Your task to perform on an android device: remove spam from my inbox in the gmail app Image 0: 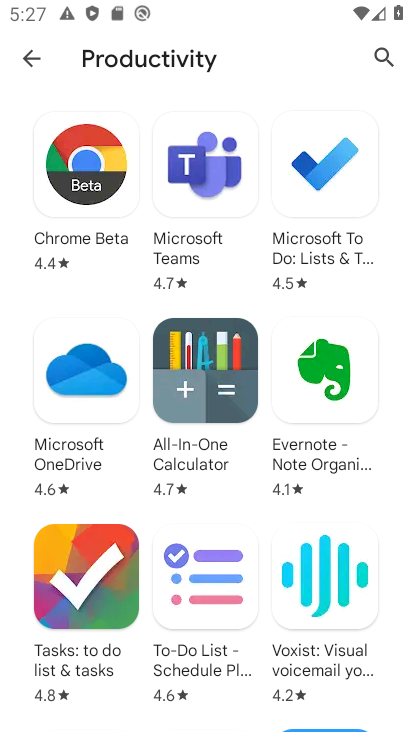
Step 0: press back button
Your task to perform on an android device: remove spam from my inbox in the gmail app Image 1: 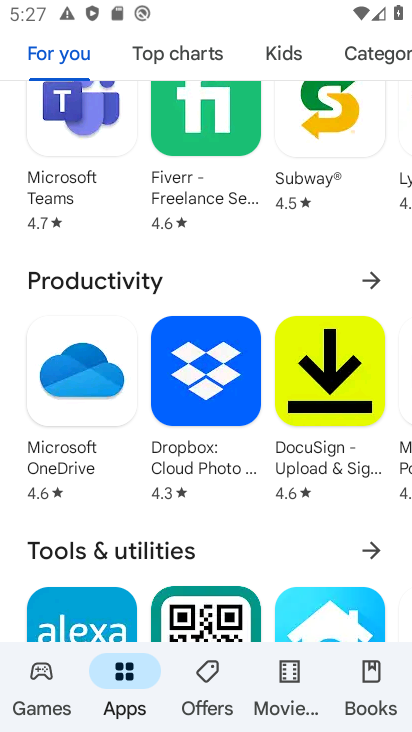
Step 1: press back button
Your task to perform on an android device: remove spam from my inbox in the gmail app Image 2: 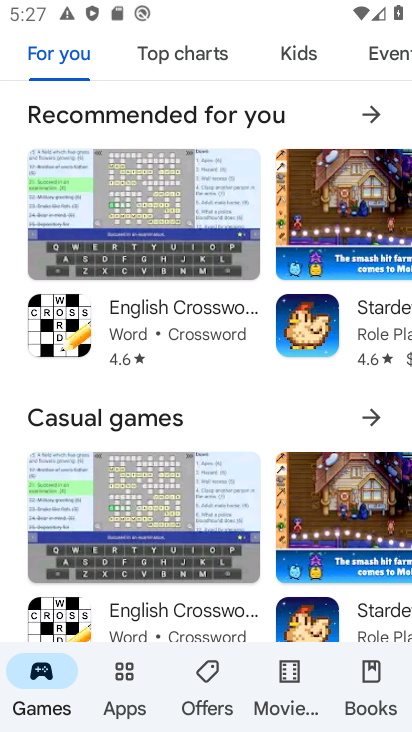
Step 2: press back button
Your task to perform on an android device: remove spam from my inbox in the gmail app Image 3: 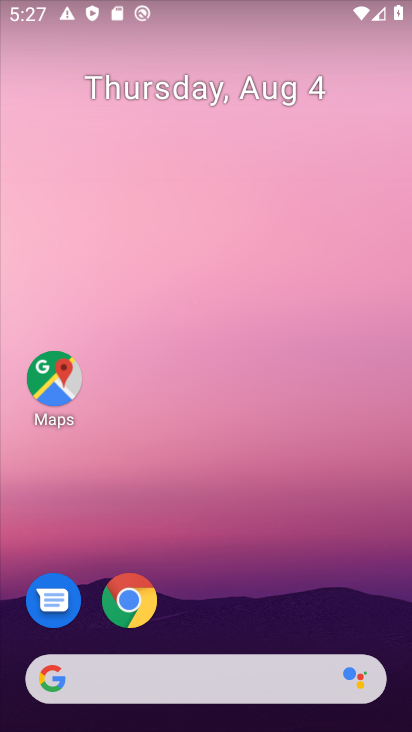
Step 3: drag from (256, 609) to (329, 36)
Your task to perform on an android device: remove spam from my inbox in the gmail app Image 4: 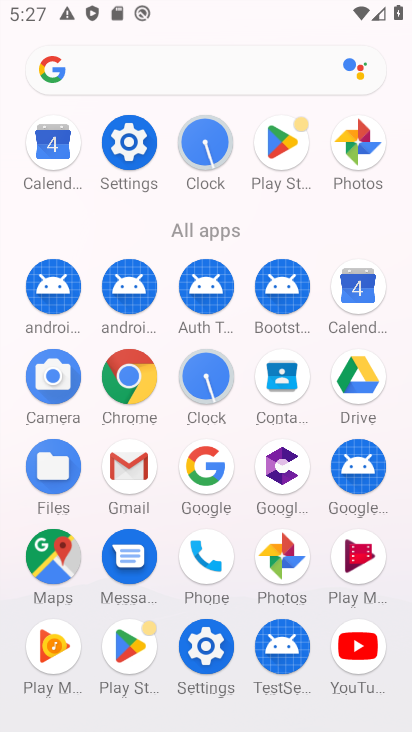
Step 4: click (120, 452)
Your task to perform on an android device: remove spam from my inbox in the gmail app Image 5: 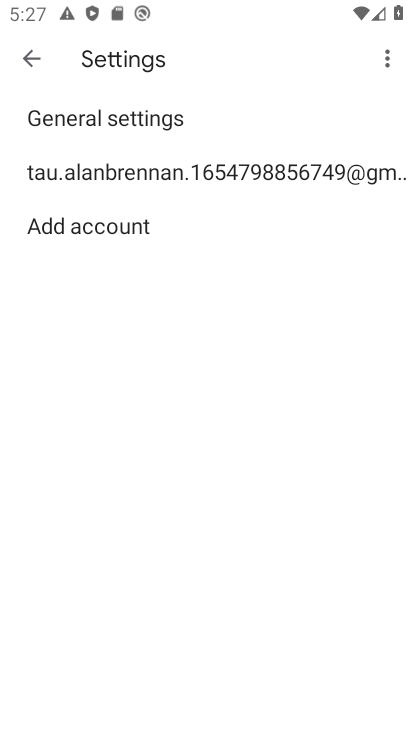
Step 5: click (40, 46)
Your task to perform on an android device: remove spam from my inbox in the gmail app Image 6: 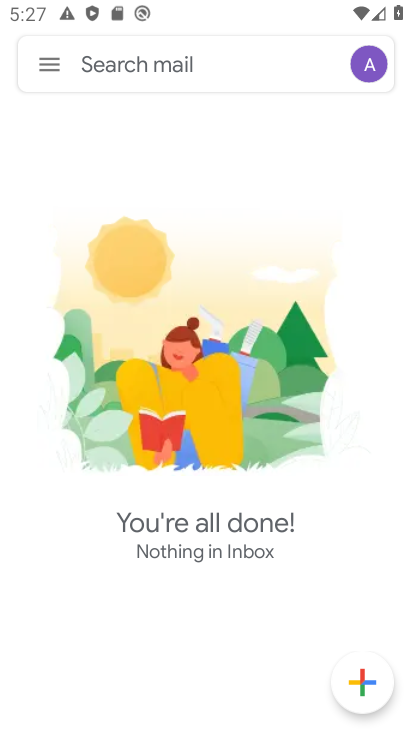
Step 6: click (52, 66)
Your task to perform on an android device: remove spam from my inbox in the gmail app Image 7: 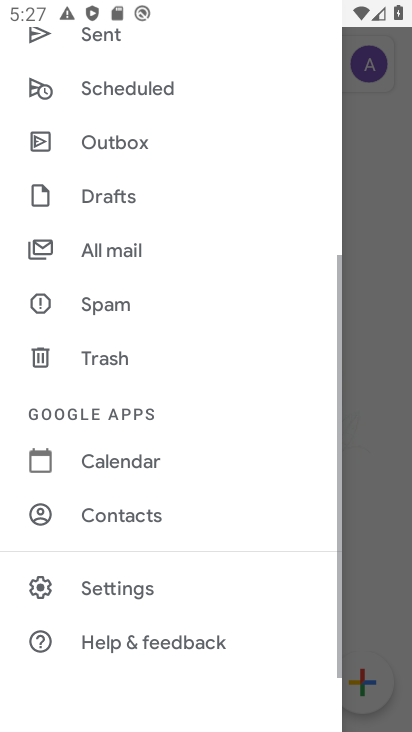
Step 7: click (125, 306)
Your task to perform on an android device: remove spam from my inbox in the gmail app Image 8: 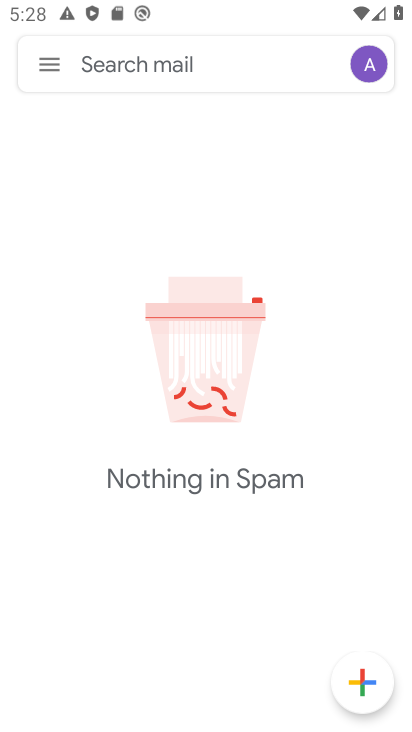
Step 8: task complete